Your task to perform on an android device: Go to sound settings Image 0: 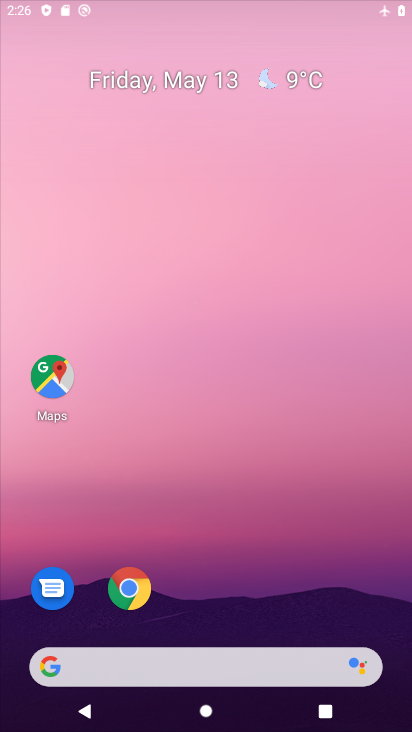
Step 0: drag from (236, 658) to (238, 63)
Your task to perform on an android device: Go to sound settings Image 1: 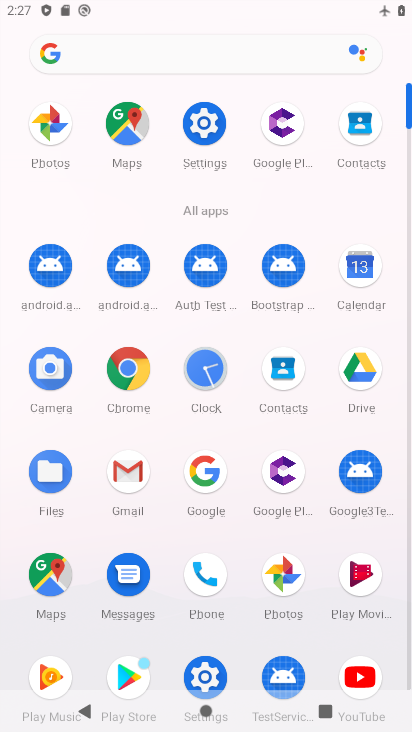
Step 1: click (190, 122)
Your task to perform on an android device: Go to sound settings Image 2: 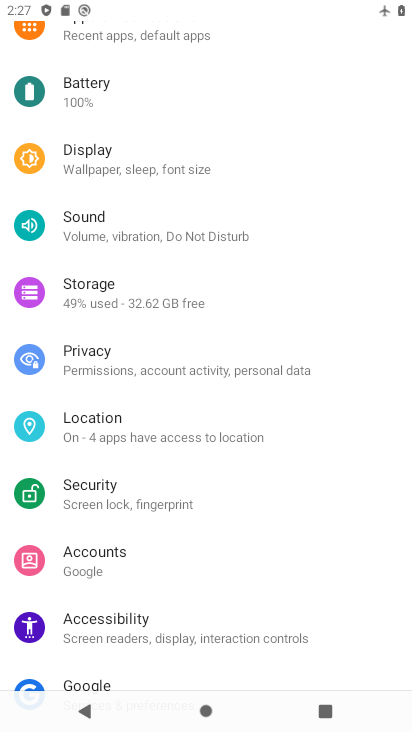
Step 2: click (122, 227)
Your task to perform on an android device: Go to sound settings Image 3: 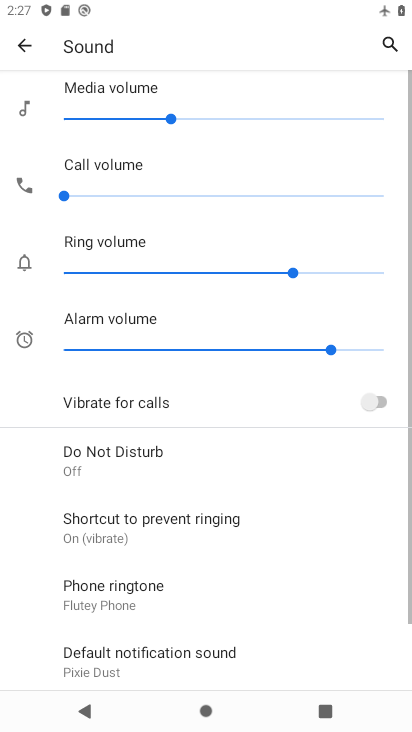
Step 3: task complete